Your task to perform on an android device: set an alarm Image 0: 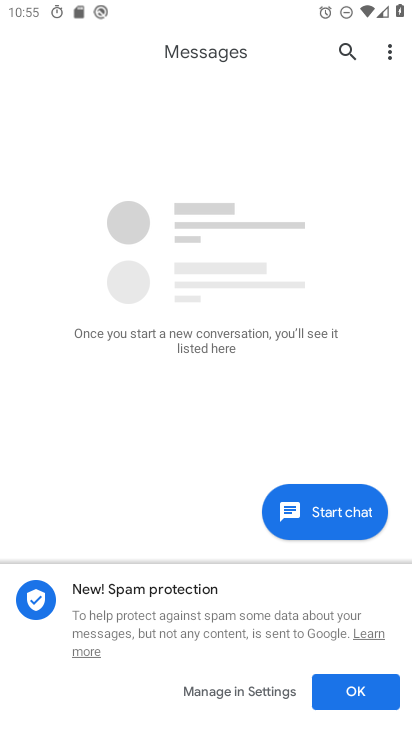
Step 0: press home button
Your task to perform on an android device: set an alarm Image 1: 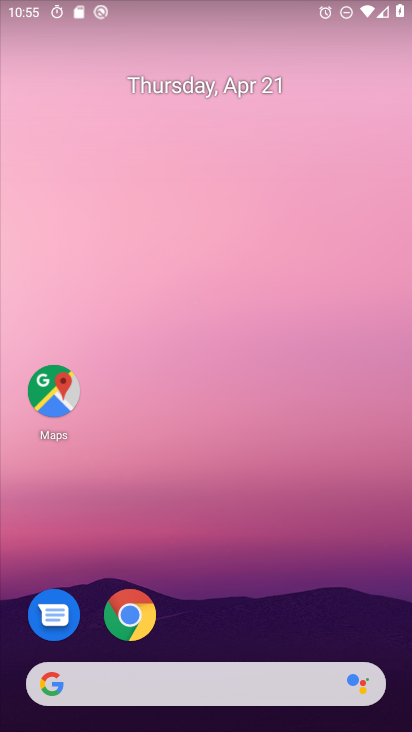
Step 1: drag from (230, 628) to (310, 113)
Your task to perform on an android device: set an alarm Image 2: 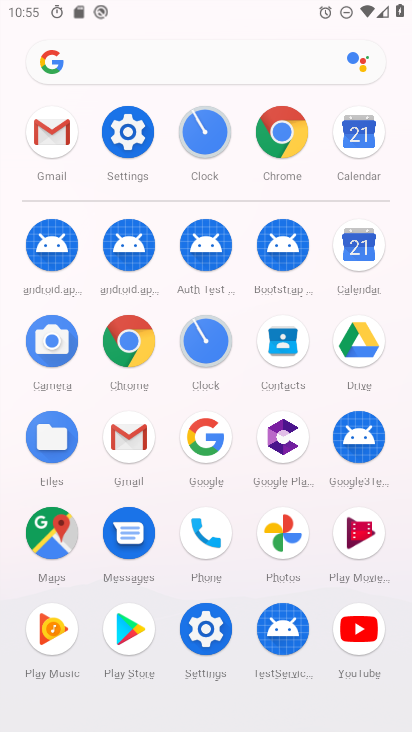
Step 2: click (205, 338)
Your task to perform on an android device: set an alarm Image 3: 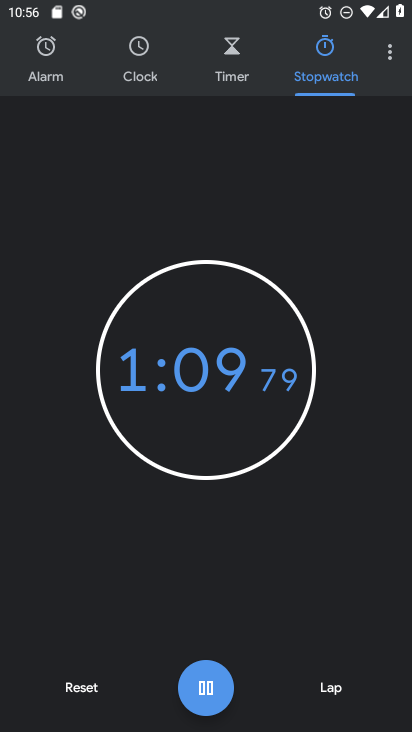
Step 3: click (70, 688)
Your task to perform on an android device: set an alarm Image 4: 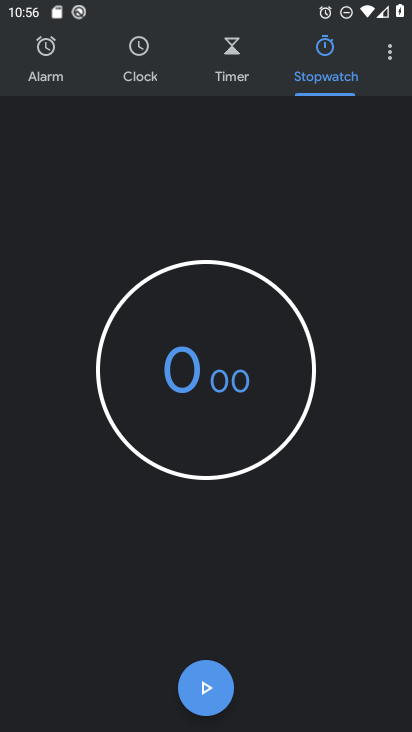
Step 4: click (44, 49)
Your task to perform on an android device: set an alarm Image 5: 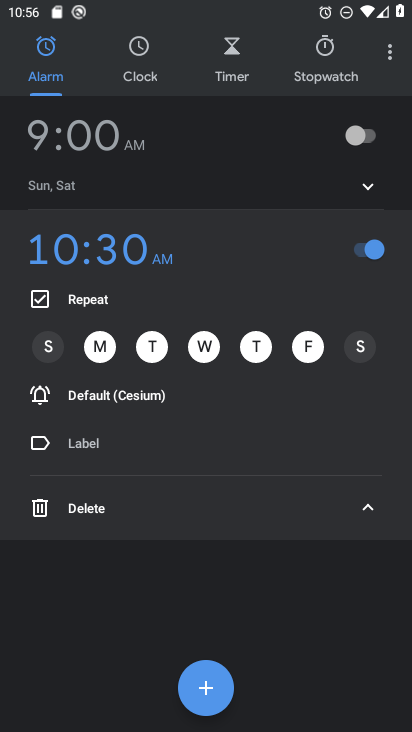
Step 5: click (107, 136)
Your task to perform on an android device: set an alarm Image 6: 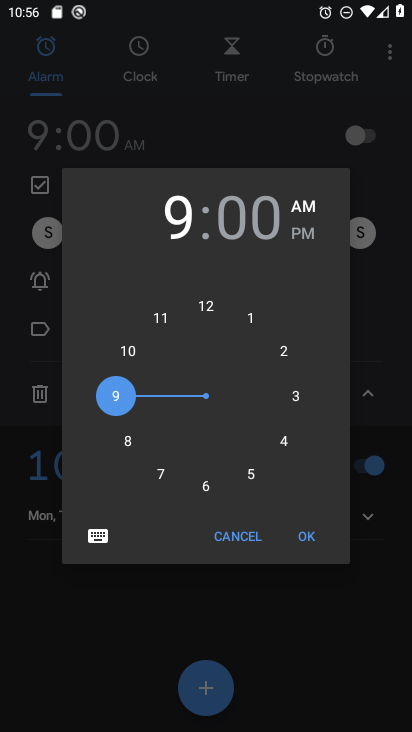
Step 6: drag from (116, 399) to (133, 448)
Your task to perform on an android device: set an alarm Image 7: 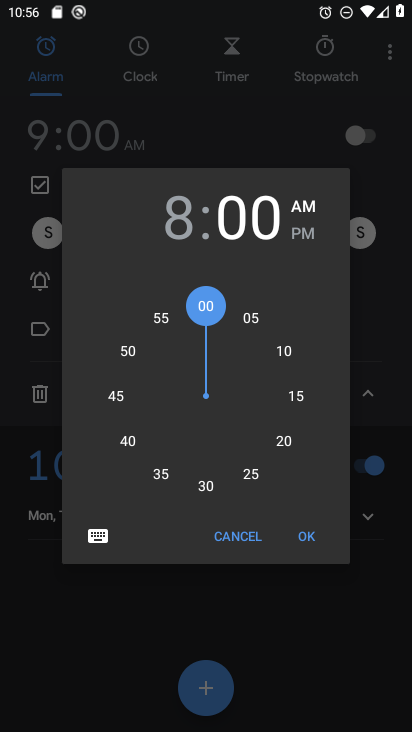
Step 7: click (301, 534)
Your task to perform on an android device: set an alarm Image 8: 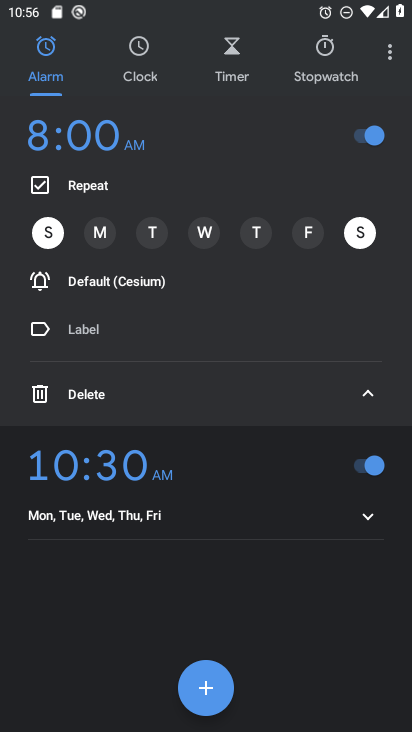
Step 8: task complete